Your task to perform on an android device: Open ESPN.com Image 0: 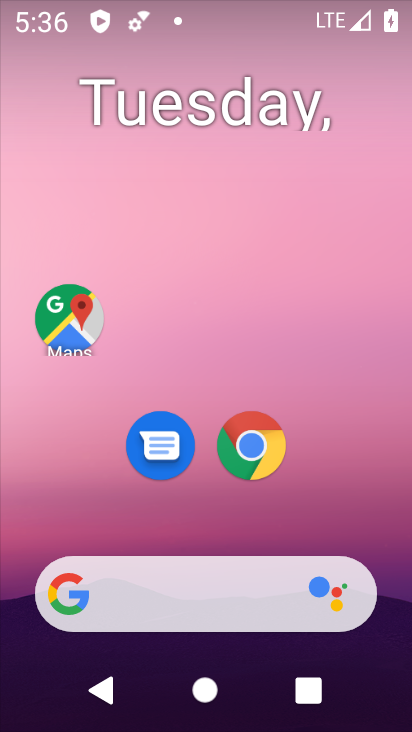
Step 0: click (254, 440)
Your task to perform on an android device: Open ESPN.com Image 1: 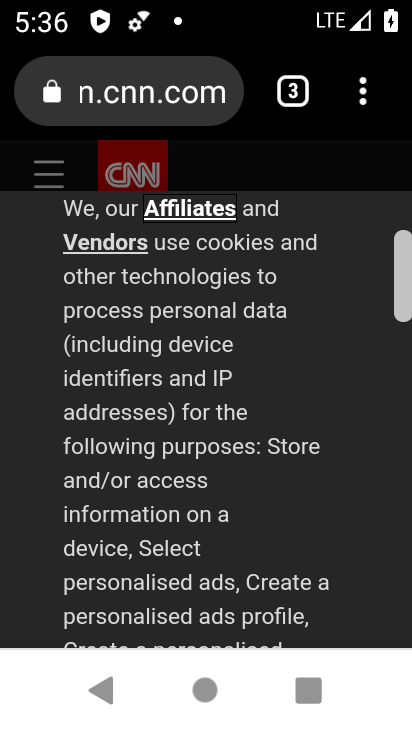
Step 1: click (202, 98)
Your task to perform on an android device: Open ESPN.com Image 2: 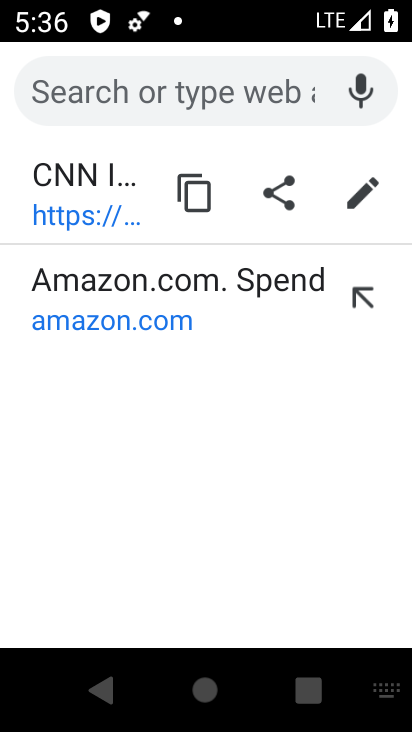
Step 2: type " ESPN.com"
Your task to perform on an android device: Open ESPN.com Image 3: 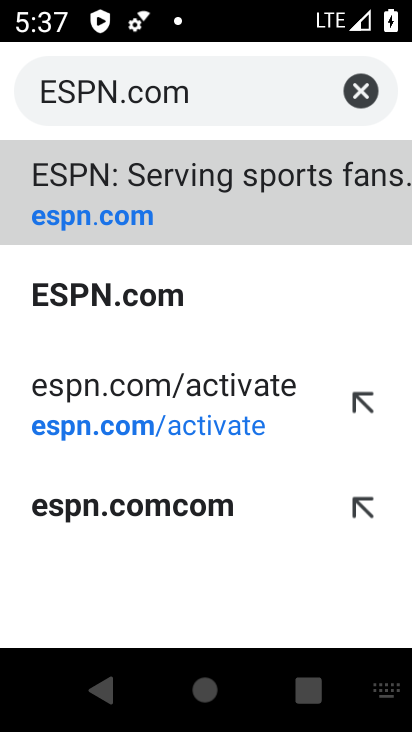
Step 3: click (104, 223)
Your task to perform on an android device: Open ESPN.com Image 4: 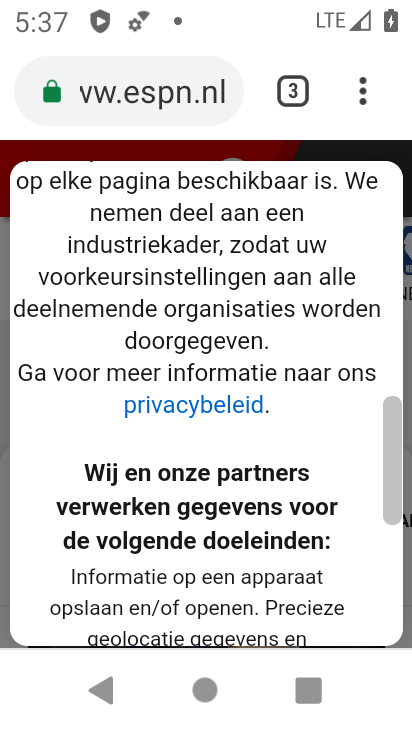
Step 4: task complete